Your task to perform on an android device: Check the weather Image 0: 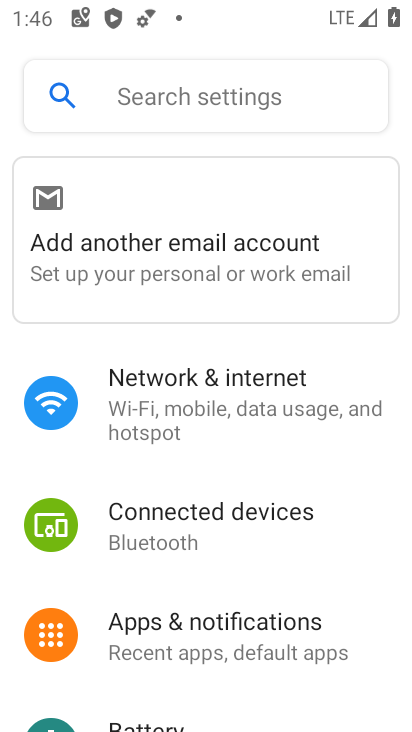
Step 0: press home button
Your task to perform on an android device: Check the weather Image 1: 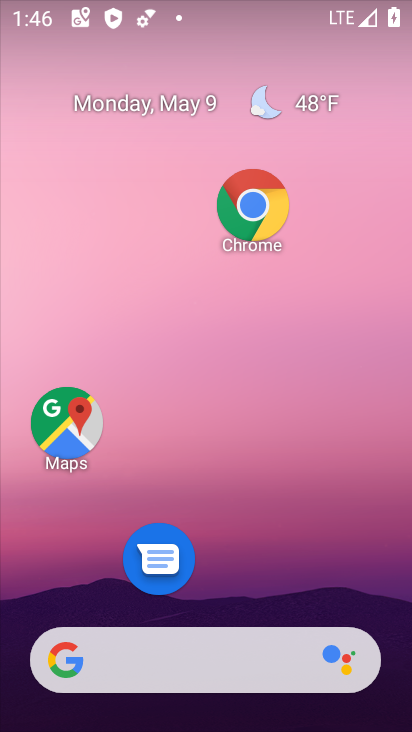
Step 1: drag from (363, 328) to (403, 59)
Your task to perform on an android device: Check the weather Image 2: 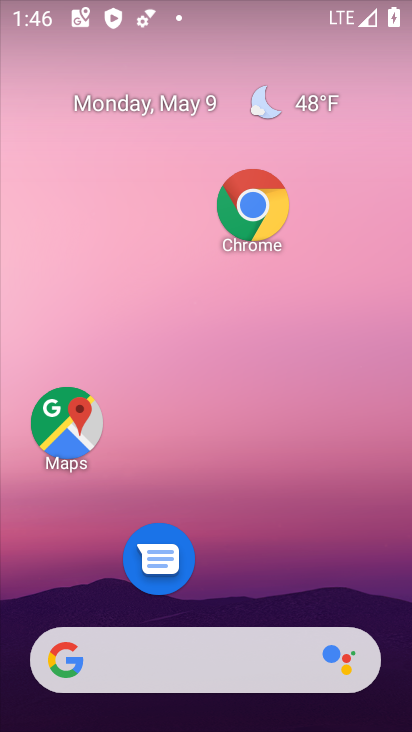
Step 2: drag from (327, 480) to (350, 142)
Your task to perform on an android device: Check the weather Image 3: 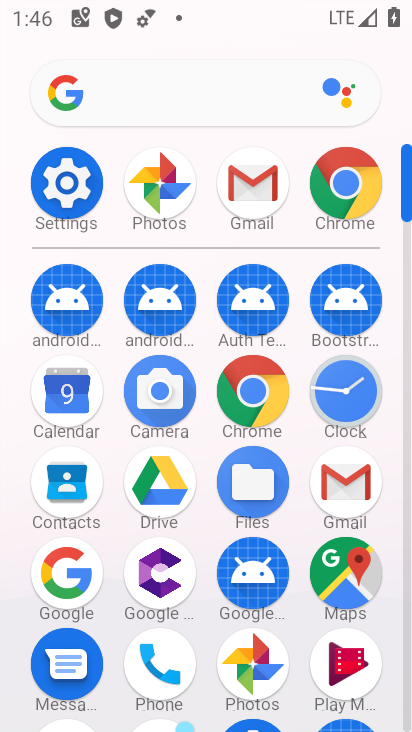
Step 3: click (351, 164)
Your task to perform on an android device: Check the weather Image 4: 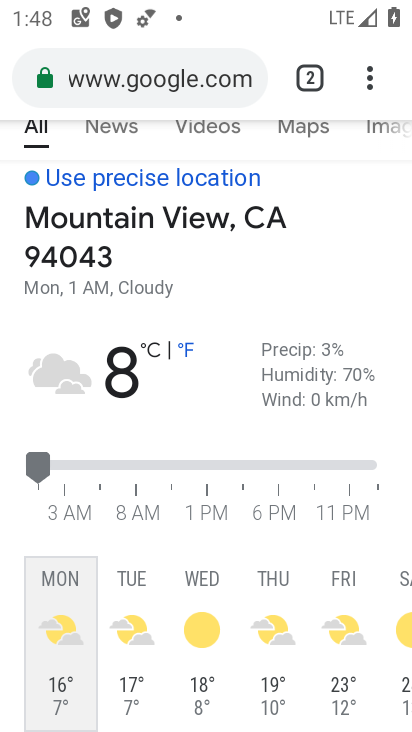
Step 4: task complete